Your task to perform on an android device: open app "Airtel Thanks" (install if not already installed) Image 0: 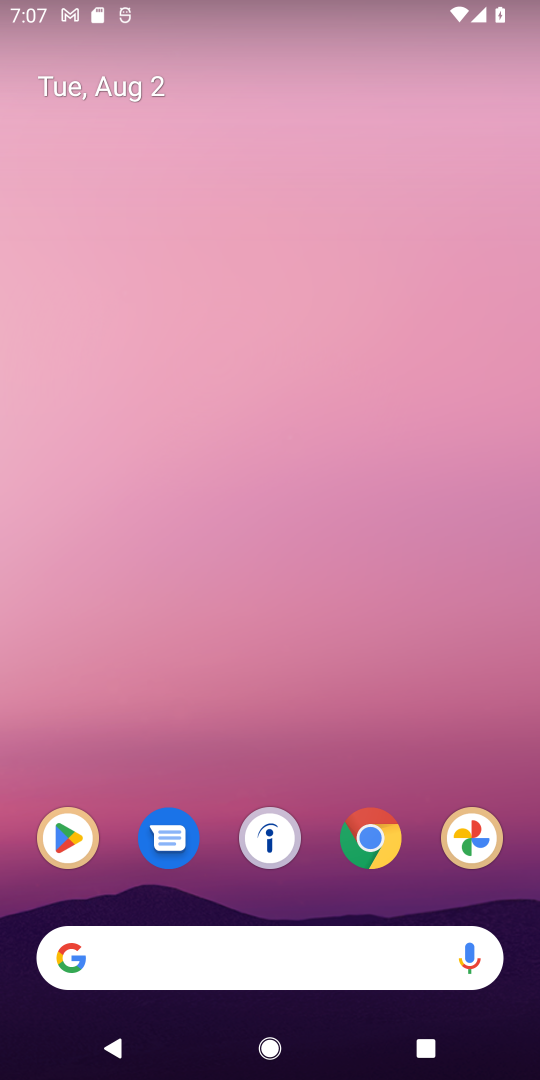
Step 0: click (57, 829)
Your task to perform on an android device: open app "Airtel Thanks" (install if not already installed) Image 1: 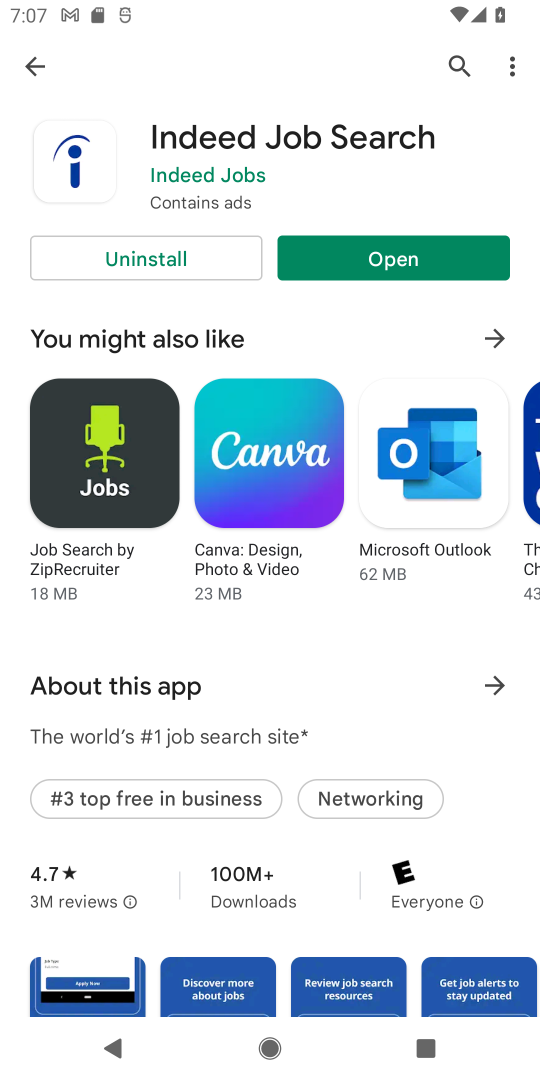
Step 1: click (460, 61)
Your task to perform on an android device: open app "Airtel Thanks" (install if not already installed) Image 2: 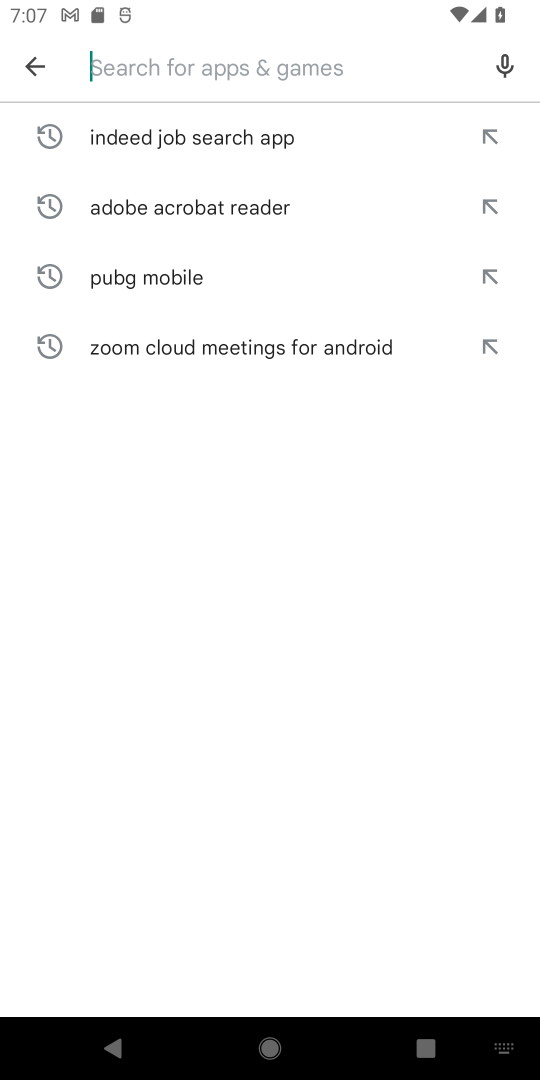
Step 2: type "airtel thanks"
Your task to perform on an android device: open app "Airtel Thanks" (install if not already installed) Image 3: 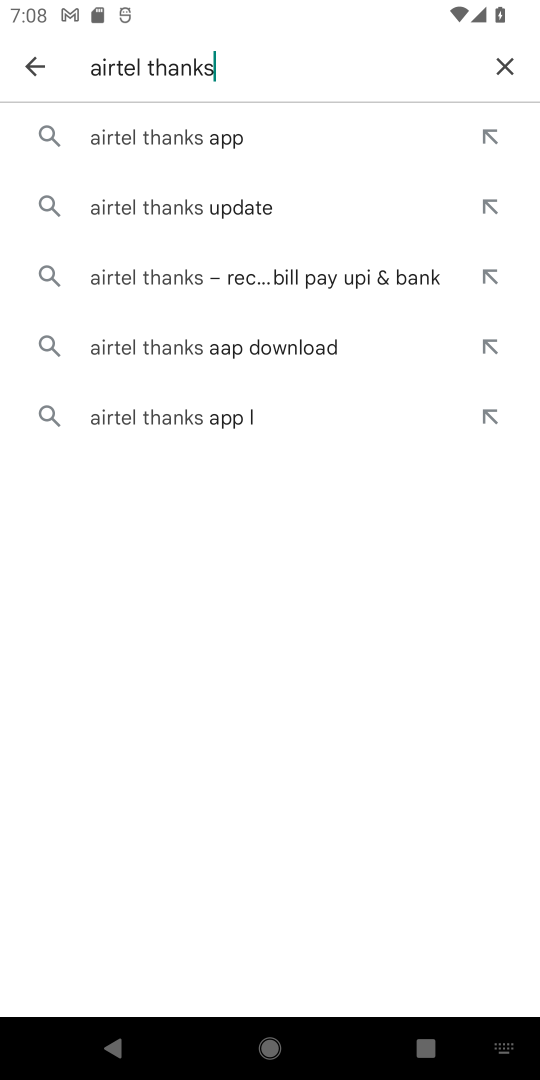
Step 3: click (200, 133)
Your task to perform on an android device: open app "Airtel Thanks" (install if not already installed) Image 4: 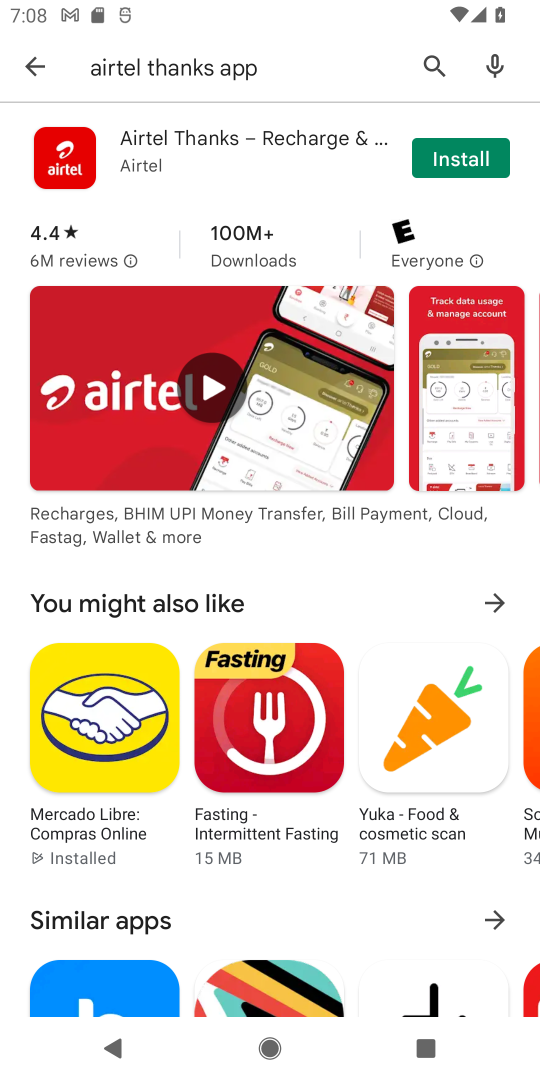
Step 4: click (165, 148)
Your task to perform on an android device: open app "Airtel Thanks" (install if not already installed) Image 5: 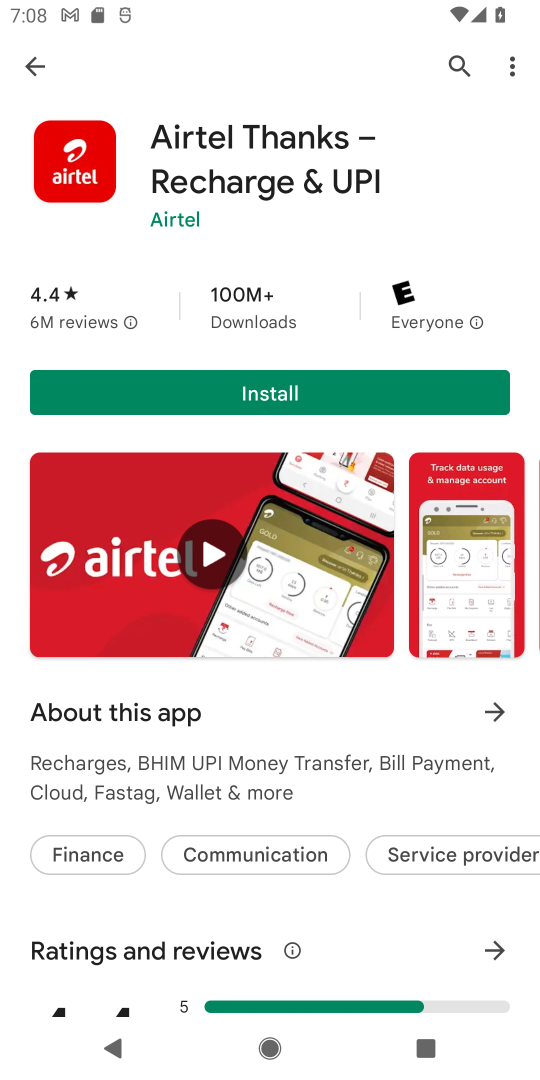
Step 5: click (220, 385)
Your task to perform on an android device: open app "Airtel Thanks" (install if not already installed) Image 6: 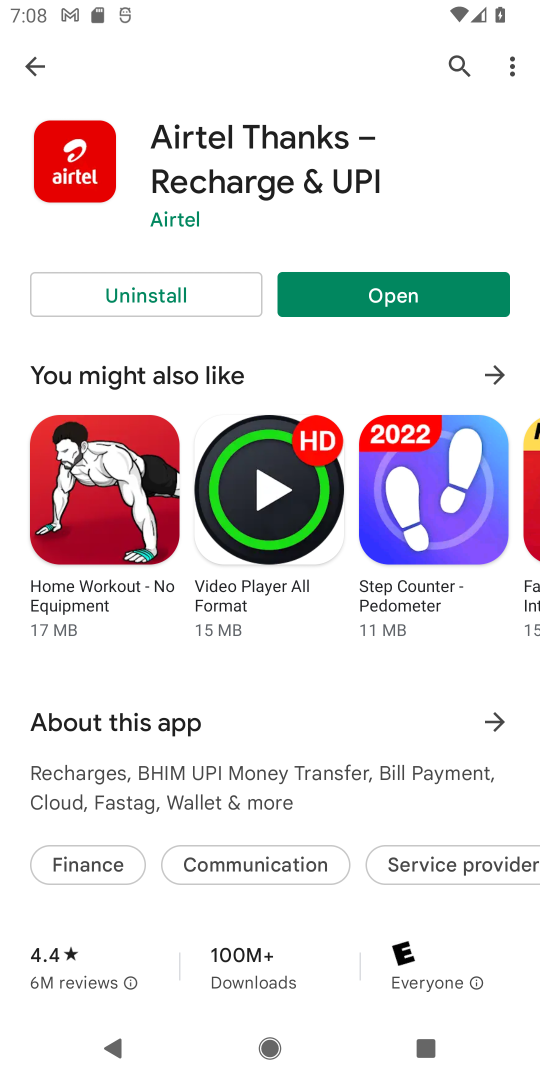
Step 6: click (374, 296)
Your task to perform on an android device: open app "Airtel Thanks" (install if not already installed) Image 7: 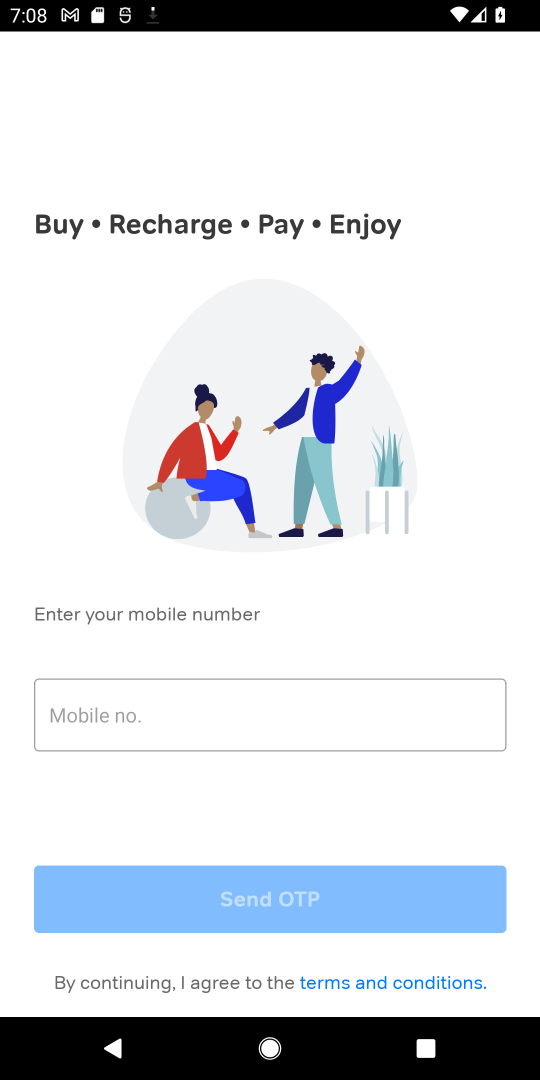
Step 7: task complete